Your task to perform on an android device: Search for vegetarian restaurants on Maps Image 0: 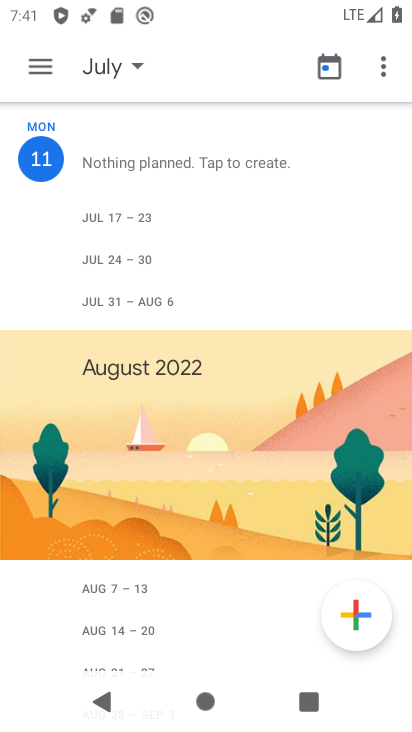
Step 0: press home button
Your task to perform on an android device: Search for vegetarian restaurants on Maps Image 1: 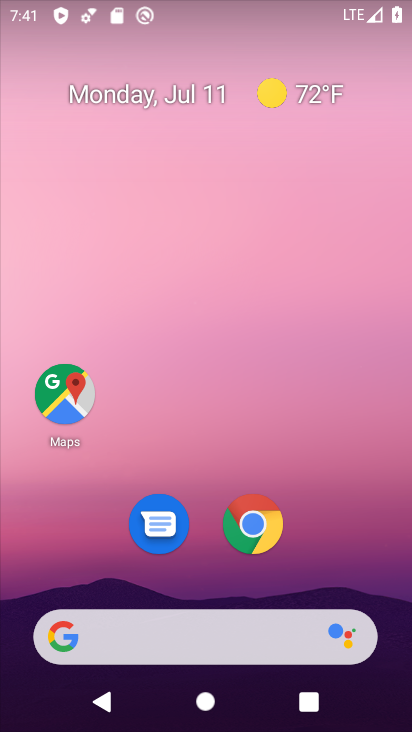
Step 1: click (56, 399)
Your task to perform on an android device: Search for vegetarian restaurants on Maps Image 2: 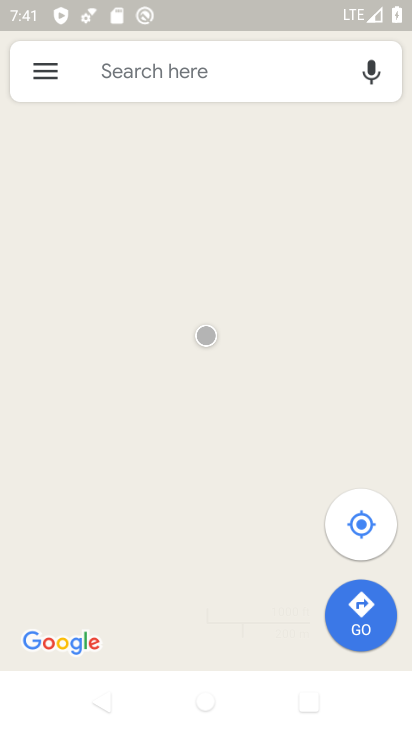
Step 2: click (225, 65)
Your task to perform on an android device: Search for vegetarian restaurants on Maps Image 3: 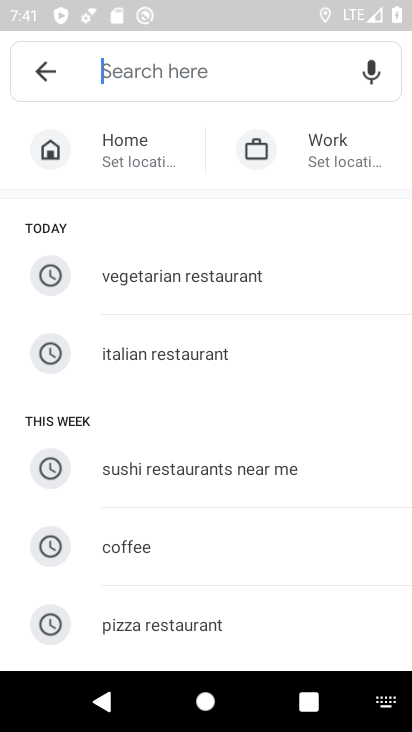
Step 3: click (234, 264)
Your task to perform on an android device: Search for vegetarian restaurants on Maps Image 4: 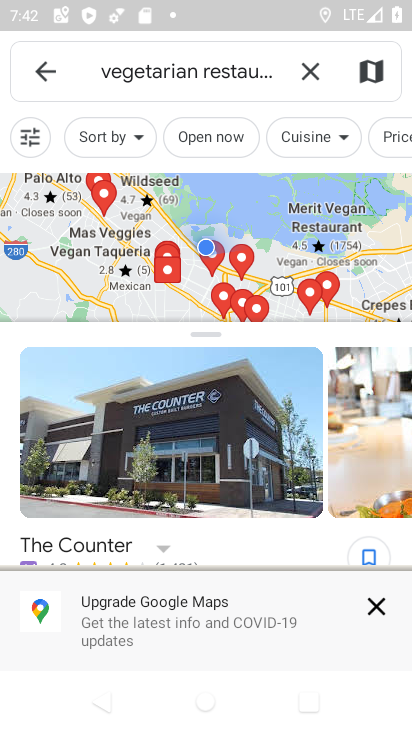
Step 4: task complete